Your task to perform on an android device: check google app version Image 0: 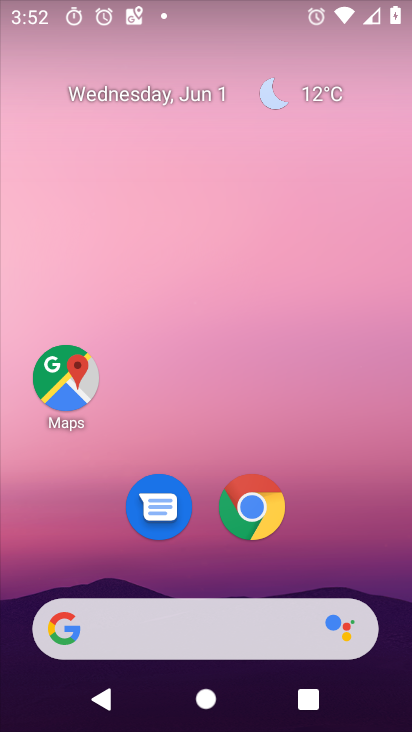
Step 0: drag from (359, 384) to (319, 12)
Your task to perform on an android device: check google app version Image 1: 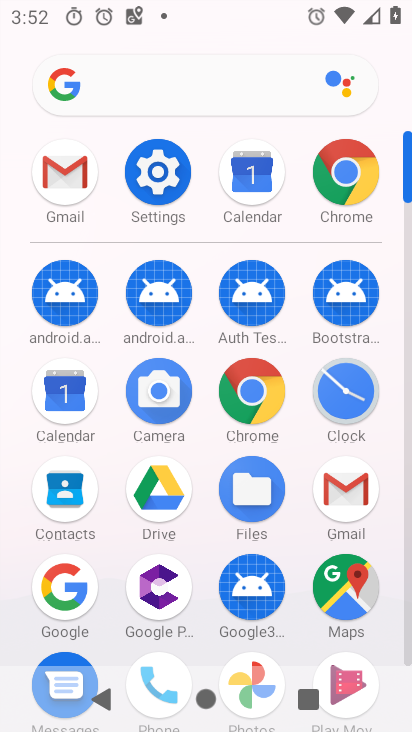
Step 1: click (74, 598)
Your task to perform on an android device: check google app version Image 2: 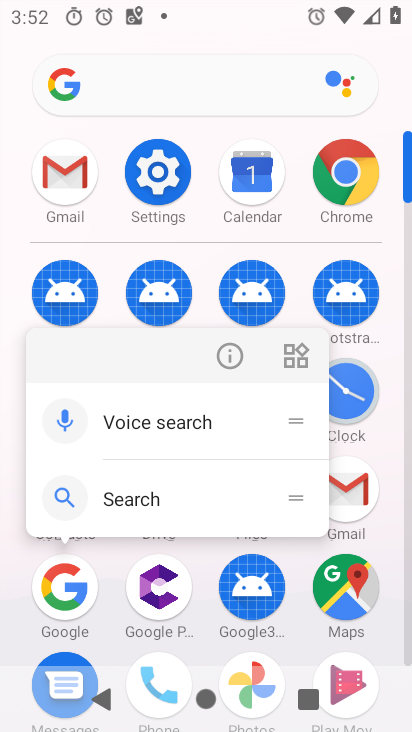
Step 2: click (231, 364)
Your task to perform on an android device: check google app version Image 3: 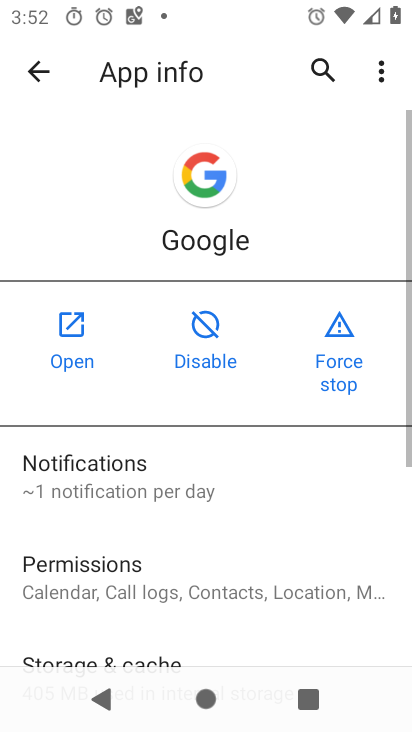
Step 3: drag from (216, 558) to (189, 68)
Your task to perform on an android device: check google app version Image 4: 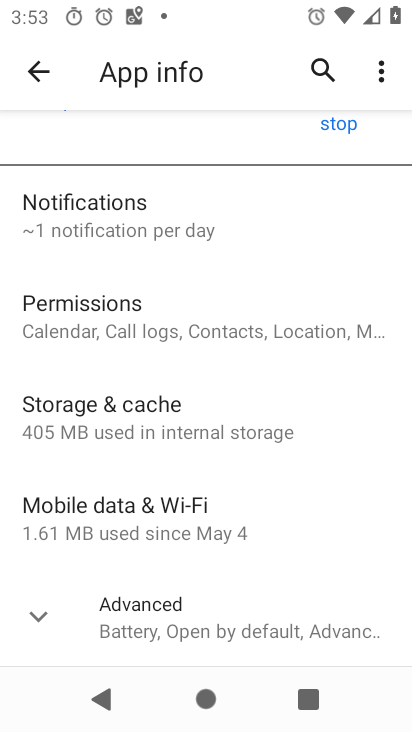
Step 4: click (34, 624)
Your task to perform on an android device: check google app version Image 5: 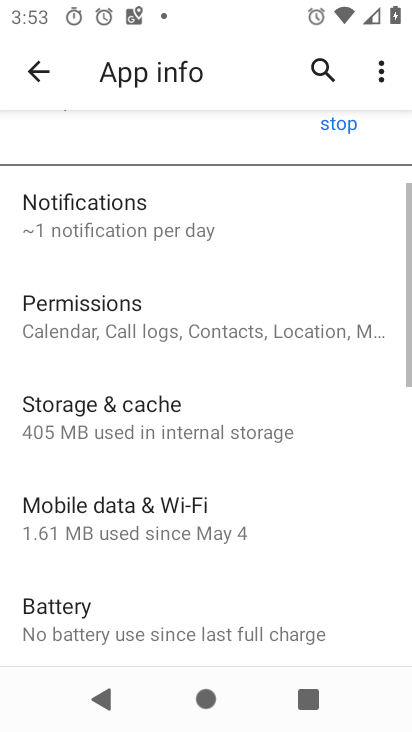
Step 5: task complete